Your task to perform on an android device: Open the web browser Image 0: 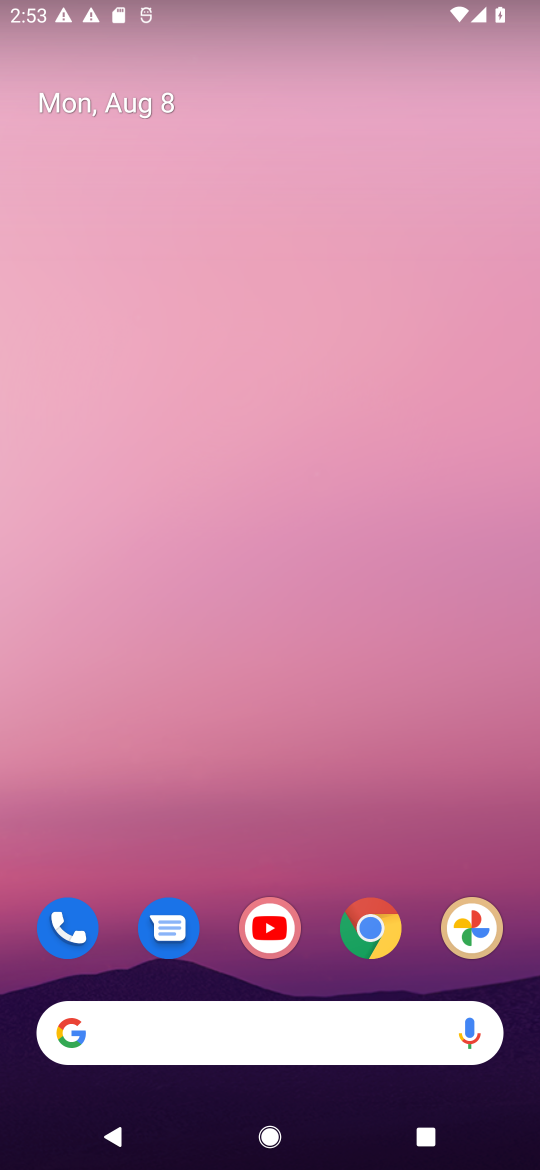
Step 0: click (198, 1030)
Your task to perform on an android device: Open the web browser Image 1: 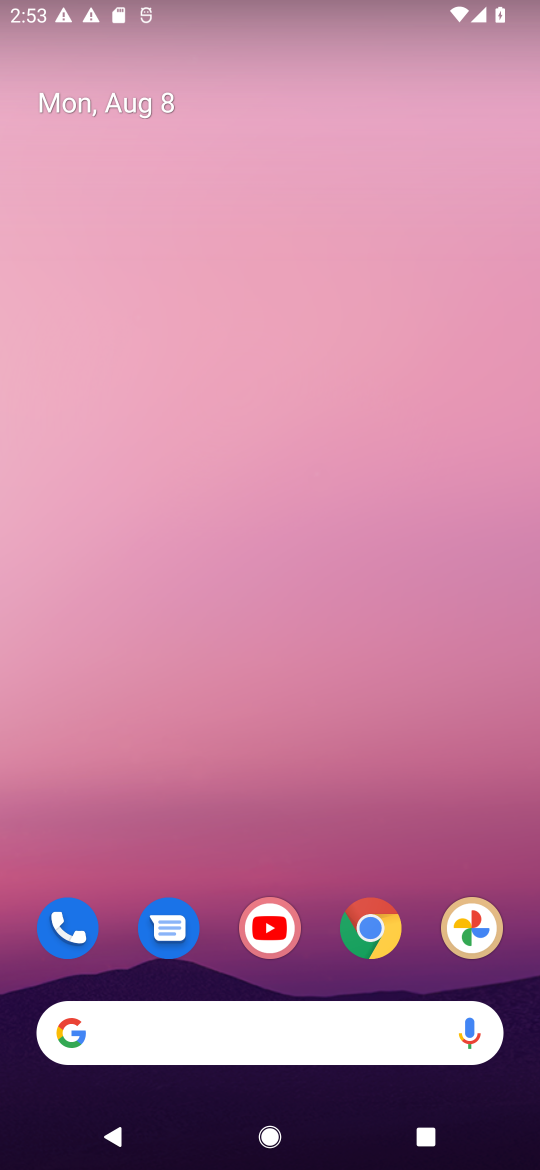
Step 1: click (245, 1041)
Your task to perform on an android device: Open the web browser Image 2: 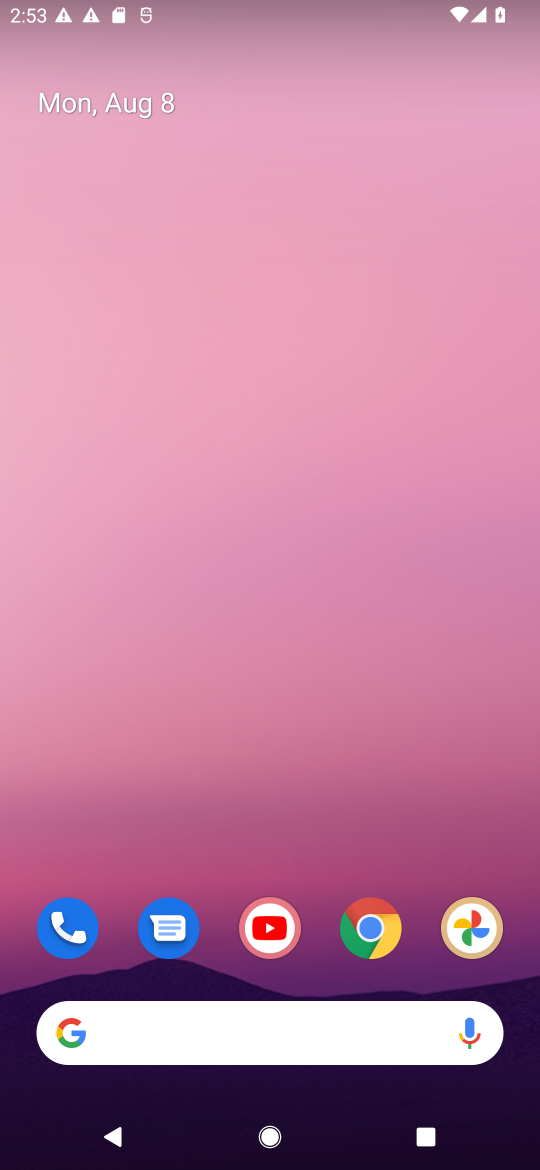
Step 2: click (245, 1041)
Your task to perform on an android device: Open the web browser Image 3: 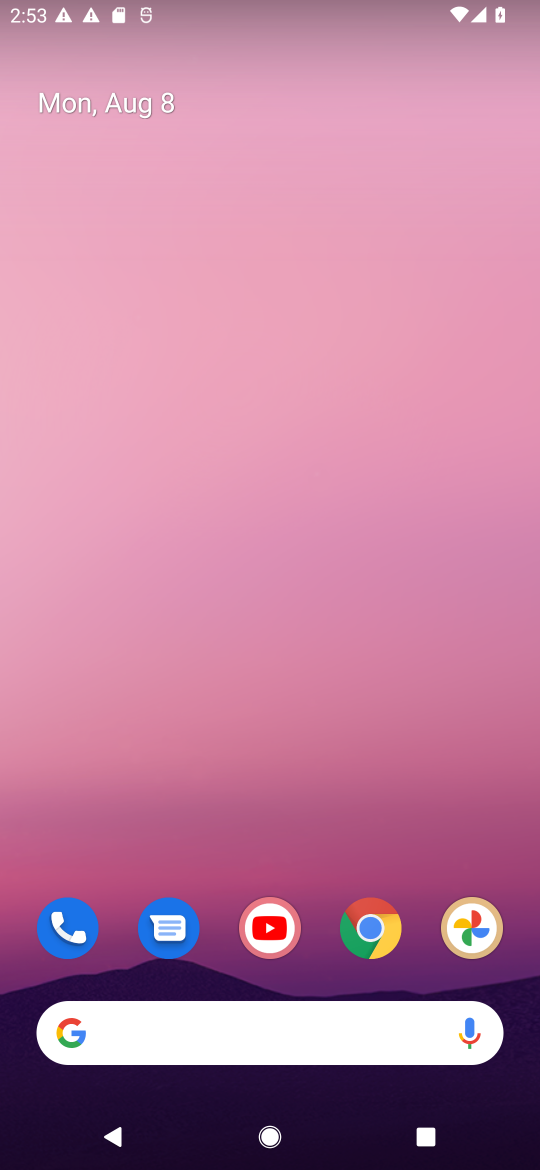
Step 3: click (245, 1041)
Your task to perform on an android device: Open the web browser Image 4: 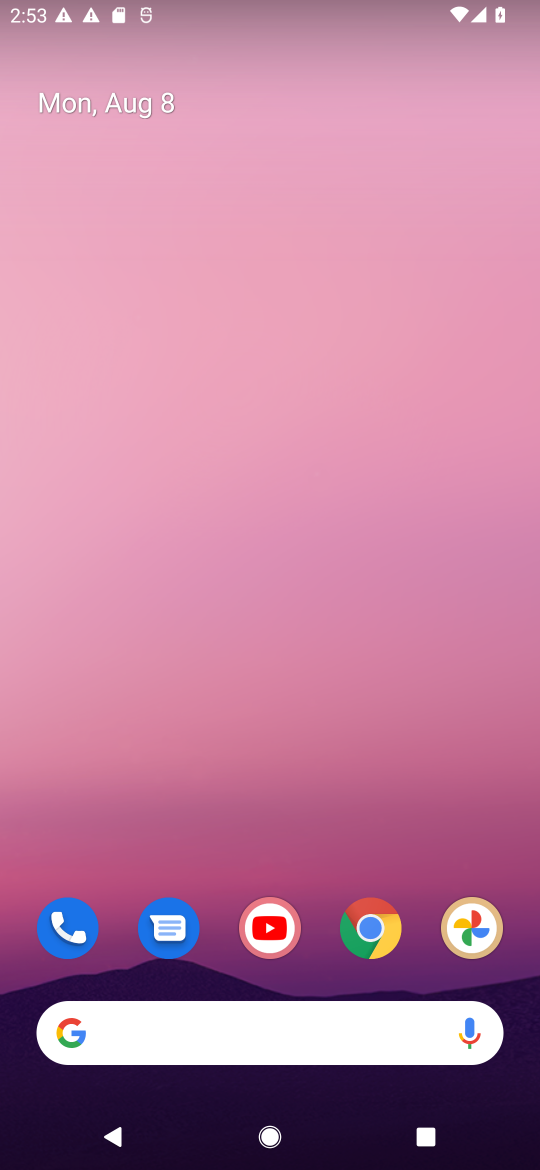
Step 4: click (245, 1041)
Your task to perform on an android device: Open the web browser Image 5: 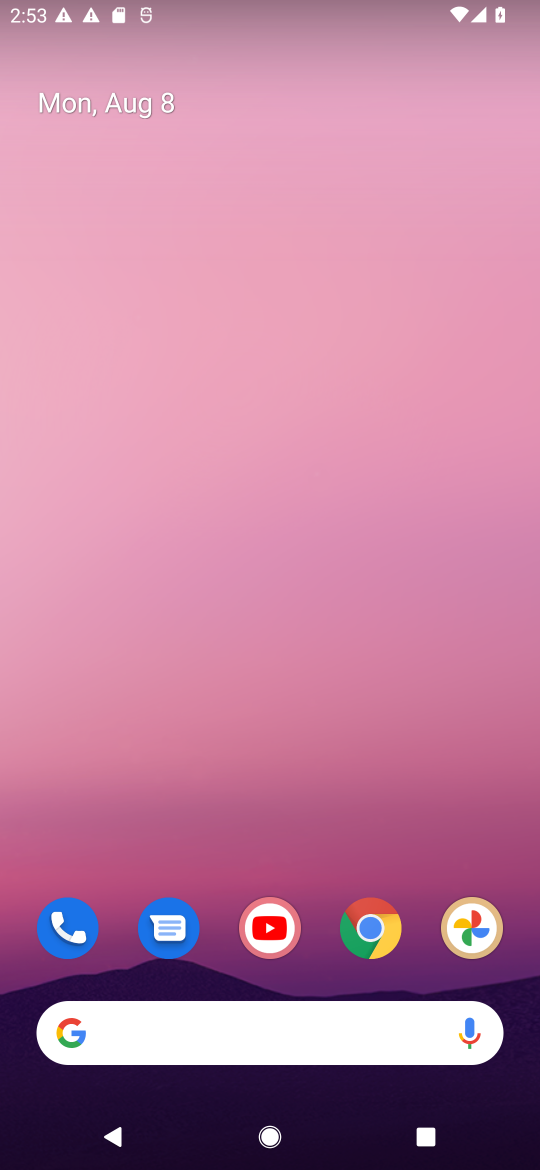
Step 5: click (245, 1041)
Your task to perform on an android device: Open the web browser Image 6: 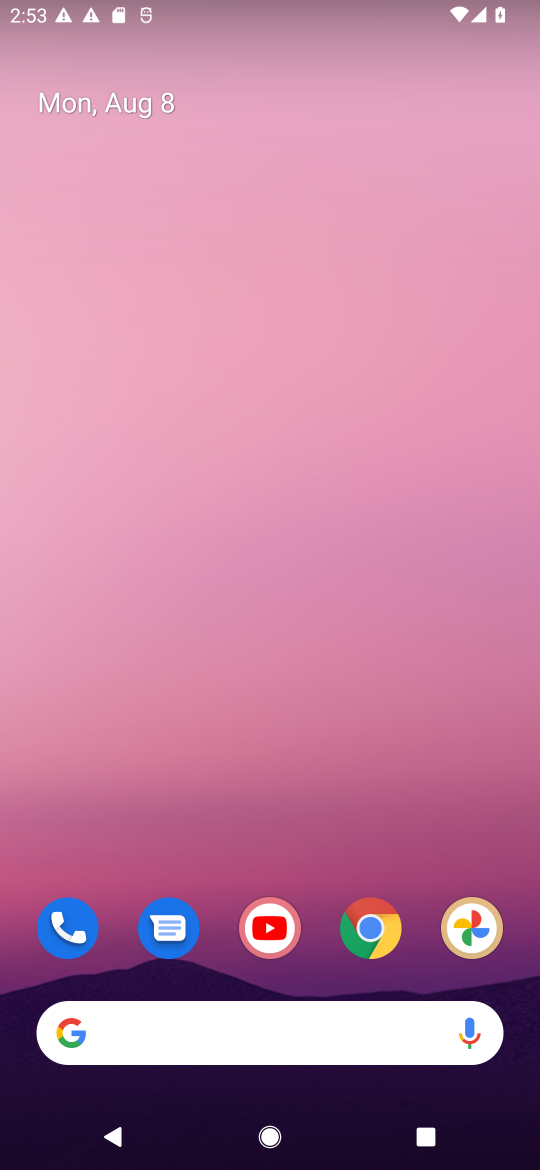
Step 6: click (245, 1041)
Your task to perform on an android device: Open the web browser Image 7: 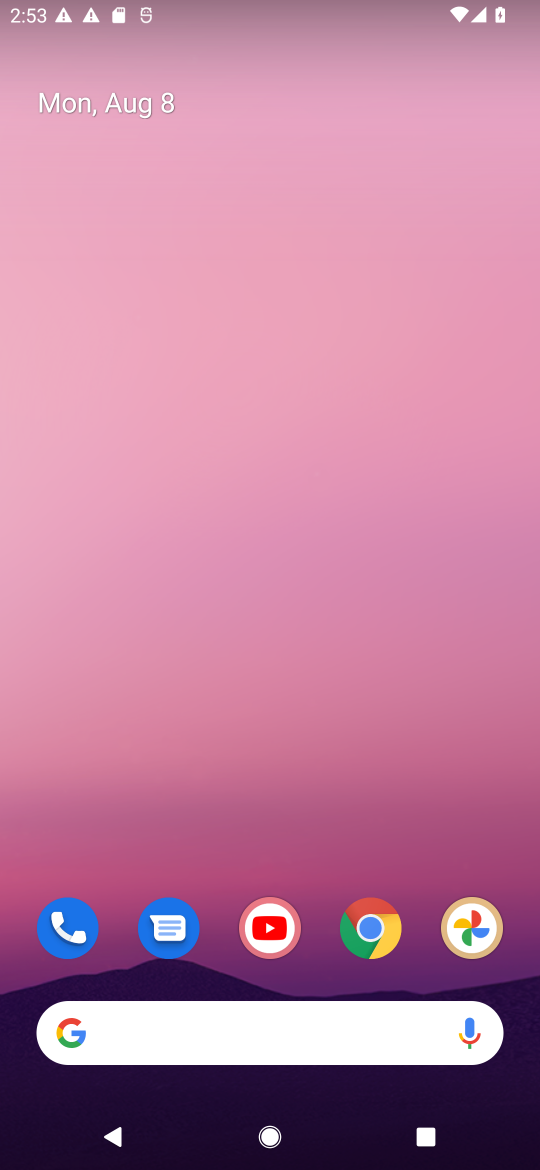
Step 7: click (388, 921)
Your task to perform on an android device: Open the web browser Image 8: 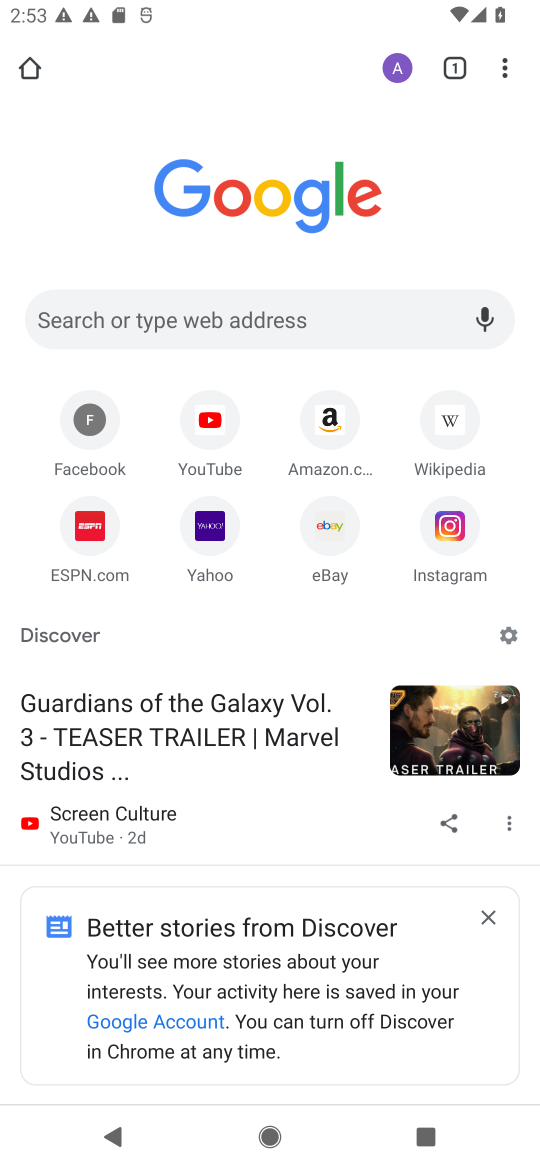
Step 8: task complete